Your task to perform on an android device: Open Google Chrome and open the bookmarks view Image 0: 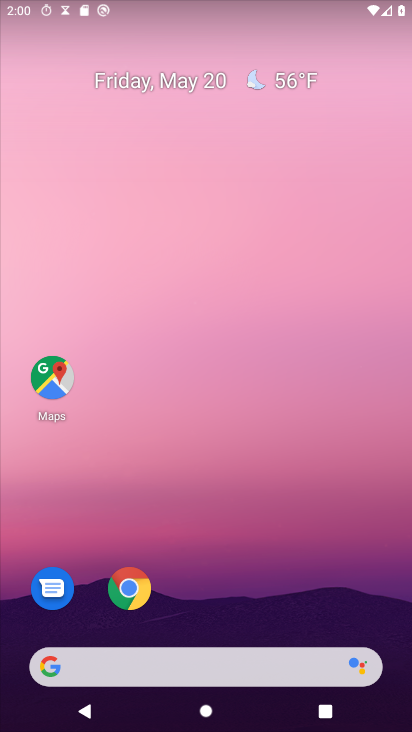
Step 0: click (137, 591)
Your task to perform on an android device: Open Google Chrome and open the bookmarks view Image 1: 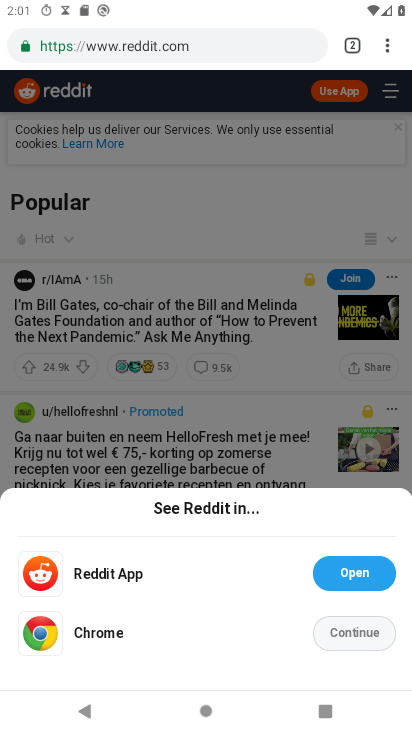
Step 1: click (389, 54)
Your task to perform on an android device: Open Google Chrome and open the bookmarks view Image 2: 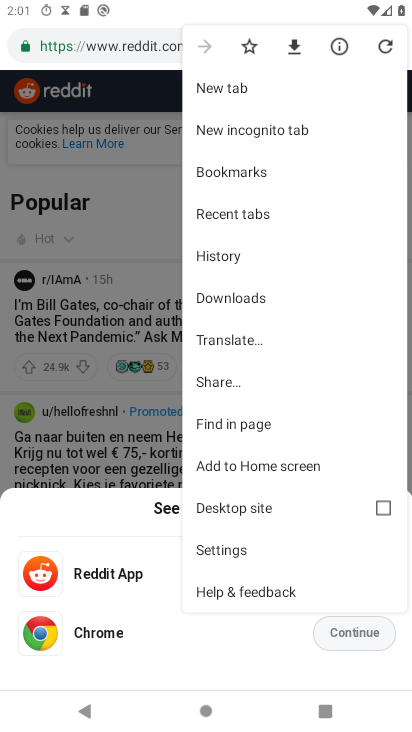
Step 2: click (233, 171)
Your task to perform on an android device: Open Google Chrome and open the bookmarks view Image 3: 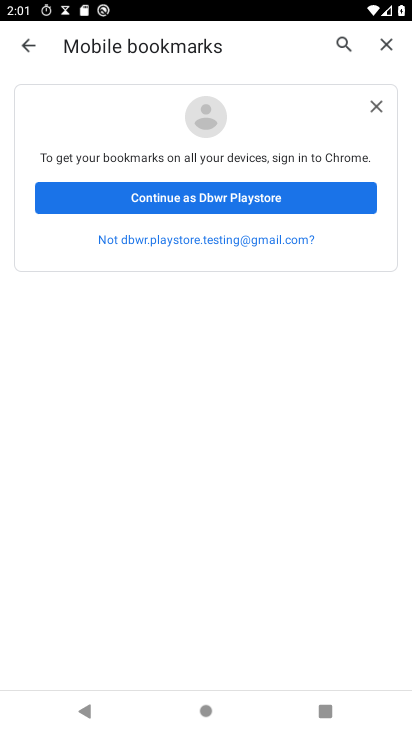
Step 3: click (372, 106)
Your task to perform on an android device: Open Google Chrome and open the bookmarks view Image 4: 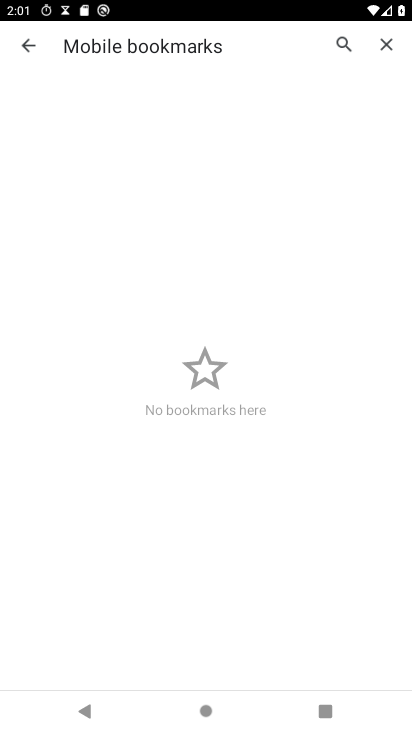
Step 4: task complete